Your task to perform on an android device: all mails in gmail Image 0: 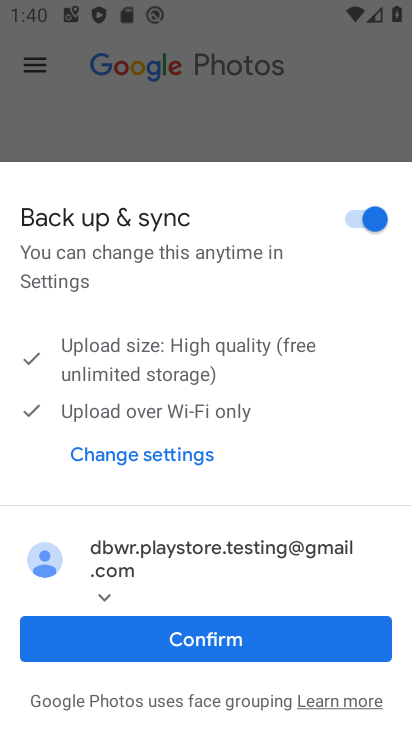
Step 0: press home button
Your task to perform on an android device: all mails in gmail Image 1: 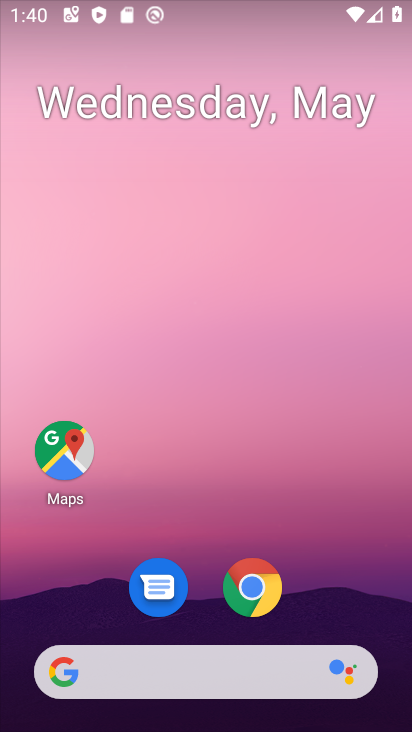
Step 1: drag from (339, 623) to (251, 27)
Your task to perform on an android device: all mails in gmail Image 2: 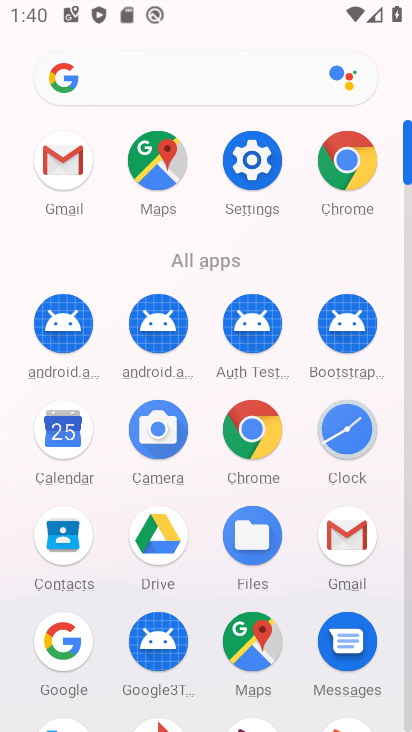
Step 2: click (354, 542)
Your task to perform on an android device: all mails in gmail Image 3: 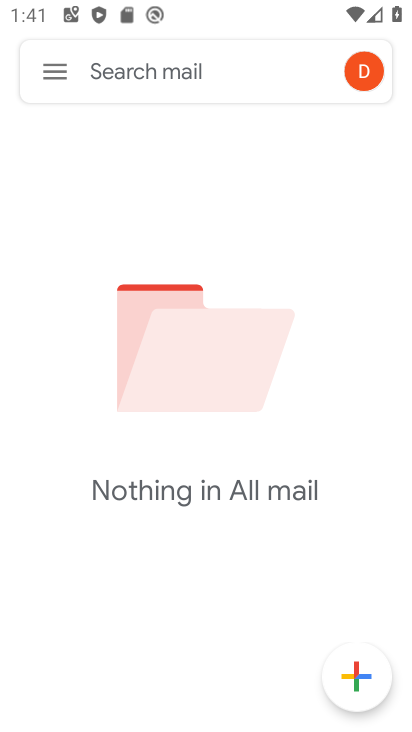
Step 3: task complete